Your task to perform on an android device: Open Wikipedia Image 0: 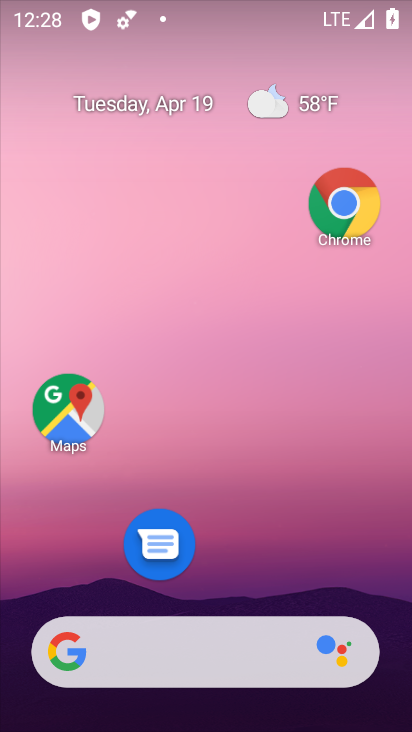
Step 0: drag from (278, 520) to (257, 107)
Your task to perform on an android device: Open Wikipedia Image 1: 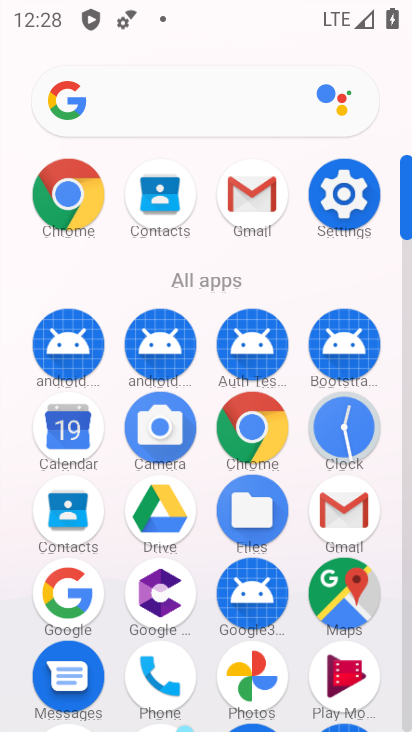
Step 1: click (82, 206)
Your task to perform on an android device: Open Wikipedia Image 2: 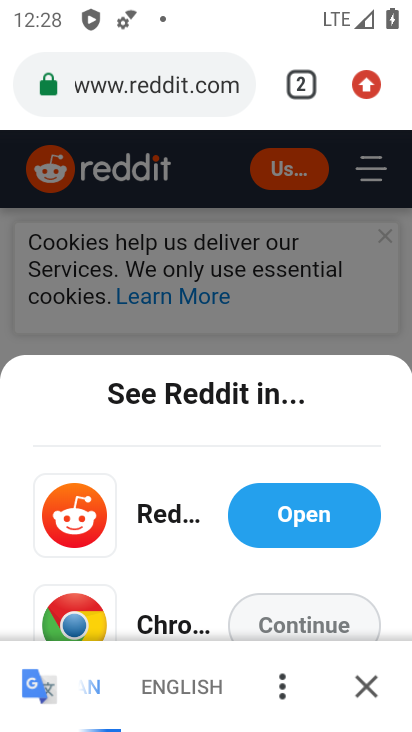
Step 2: click (307, 82)
Your task to perform on an android device: Open Wikipedia Image 3: 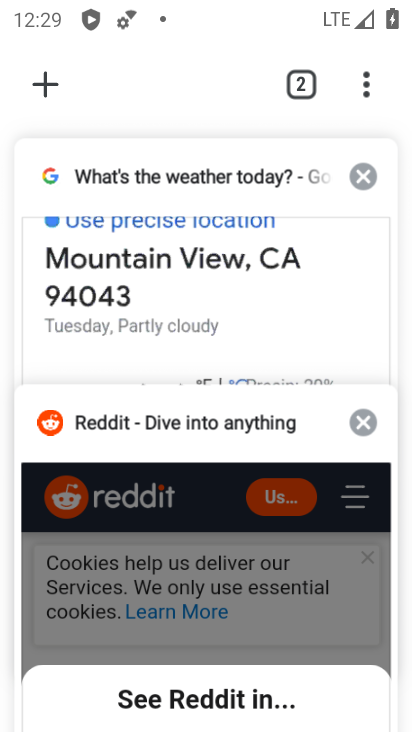
Step 3: click (46, 98)
Your task to perform on an android device: Open Wikipedia Image 4: 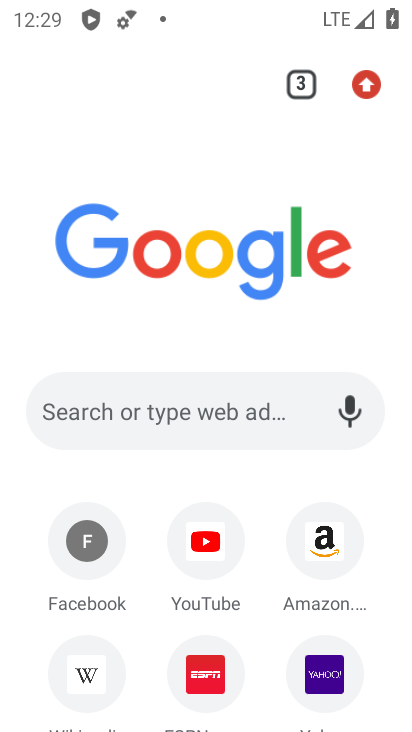
Step 4: click (86, 671)
Your task to perform on an android device: Open Wikipedia Image 5: 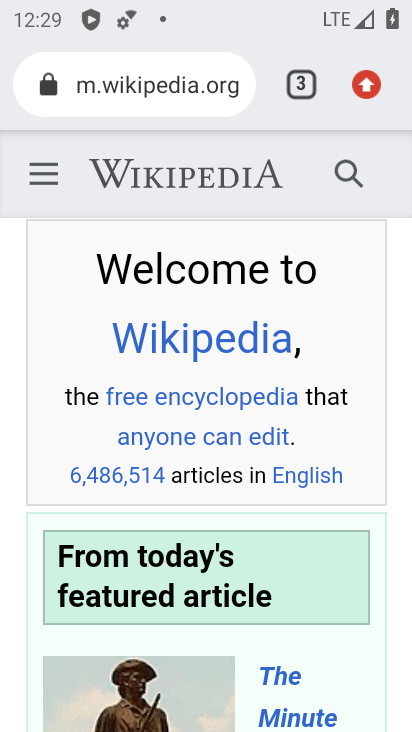
Step 5: task complete